Your task to perform on an android device: check storage Image 0: 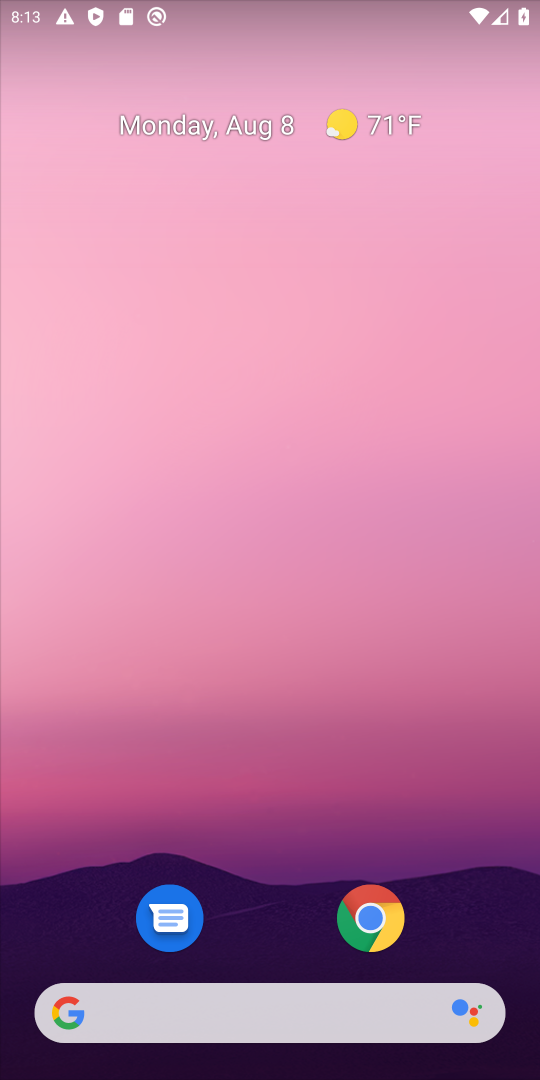
Step 0: press home button
Your task to perform on an android device: check storage Image 1: 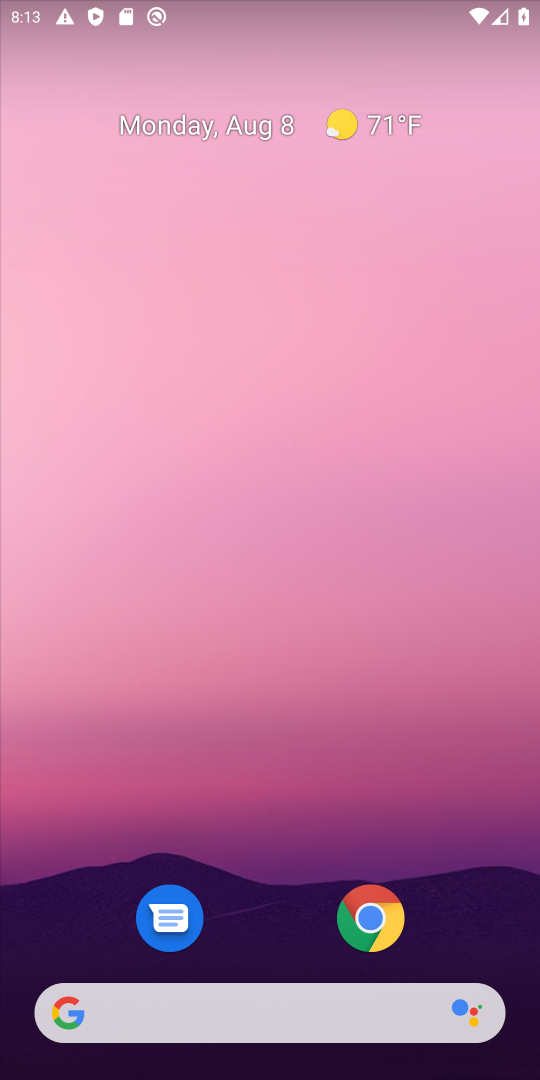
Step 1: drag from (485, 964) to (272, 255)
Your task to perform on an android device: check storage Image 2: 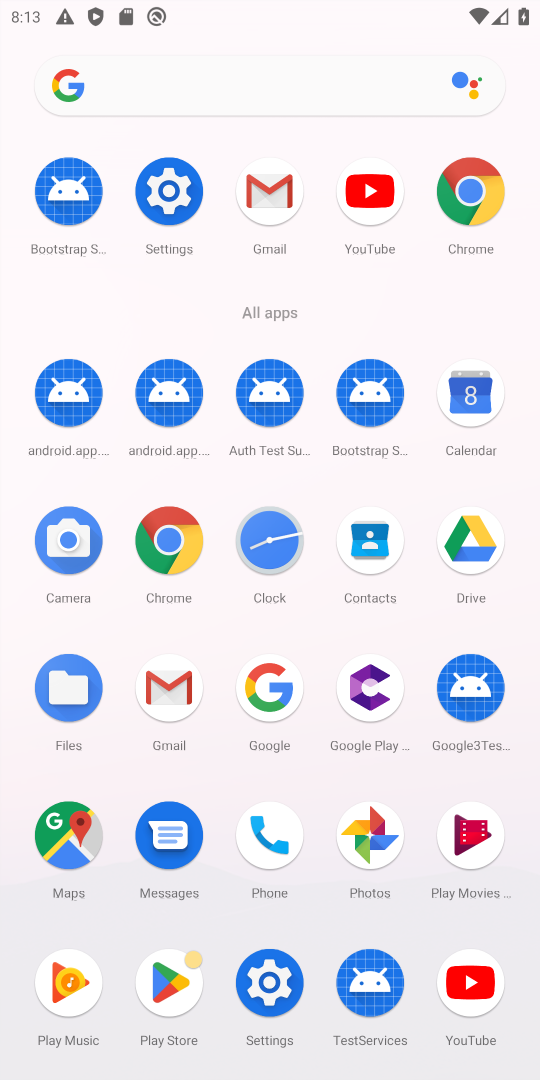
Step 2: click (173, 180)
Your task to perform on an android device: check storage Image 3: 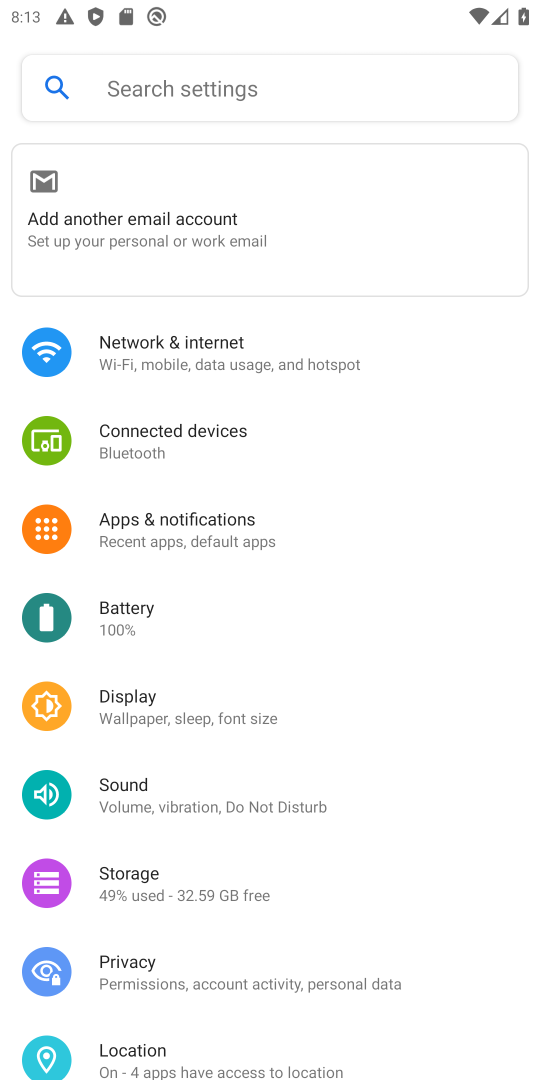
Step 3: drag from (480, 986) to (370, 366)
Your task to perform on an android device: check storage Image 4: 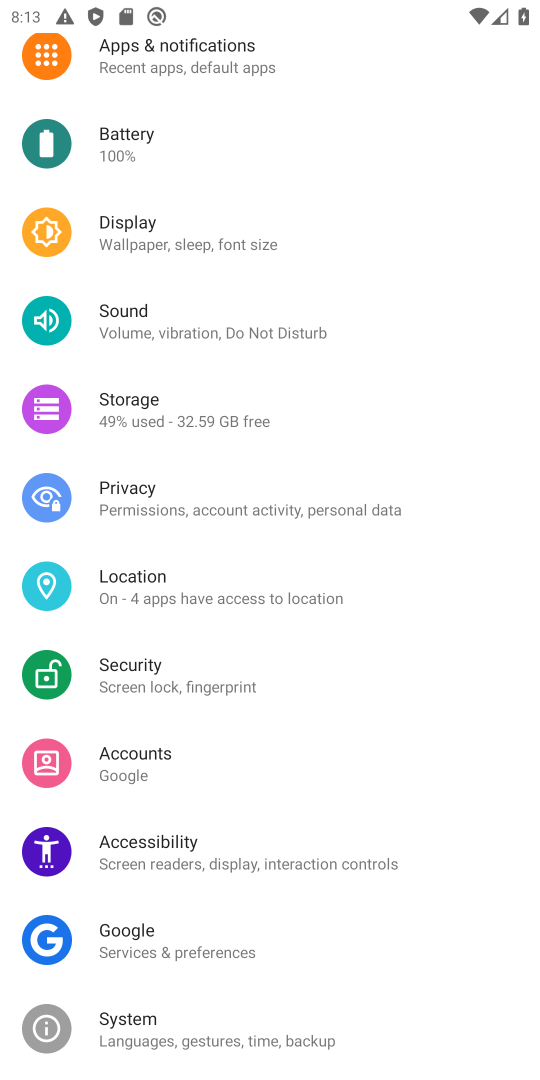
Step 4: click (132, 405)
Your task to perform on an android device: check storage Image 5: 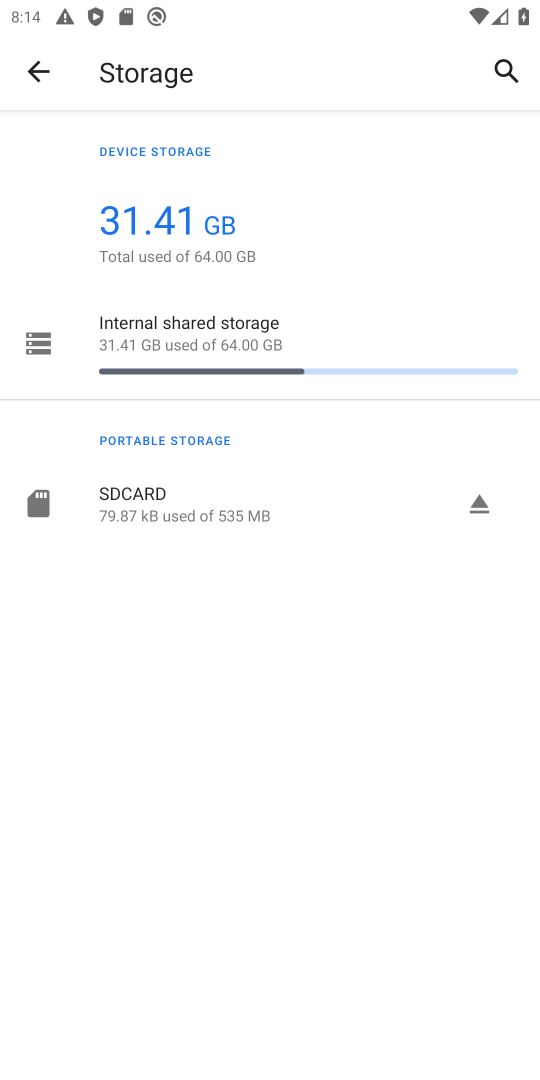
Step 5: task complete